Your task to perform on an android device: toggle javascript in the chrome app Image 0: 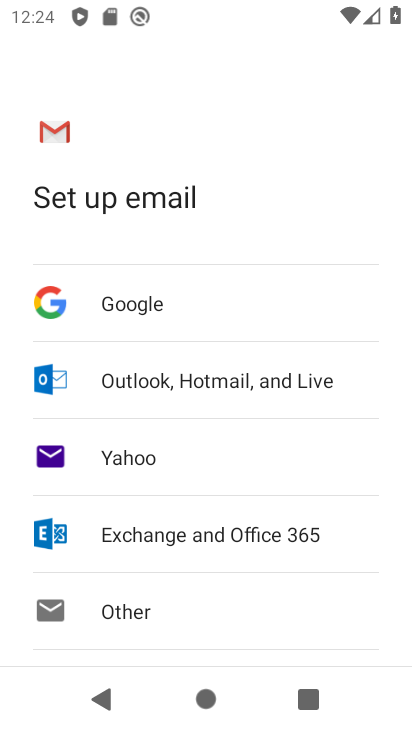
Step 0: press home button
Your task to perform on an android device: toggle javascript in the chrome app Image 1: 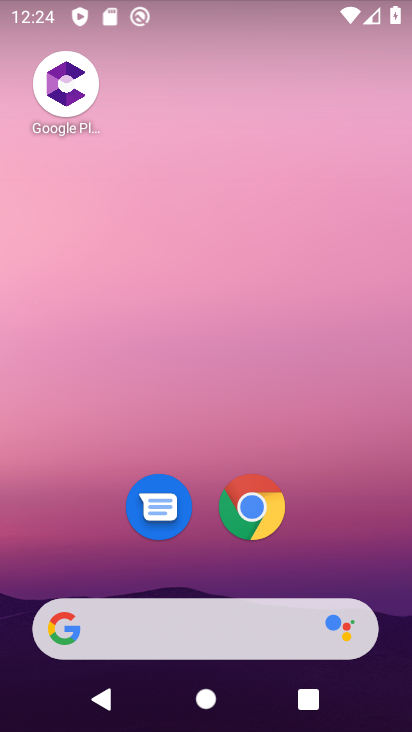
Step 1: click (255, 495)
Your task to perform on an android device: toggle javascript in the chrome app Image 2: 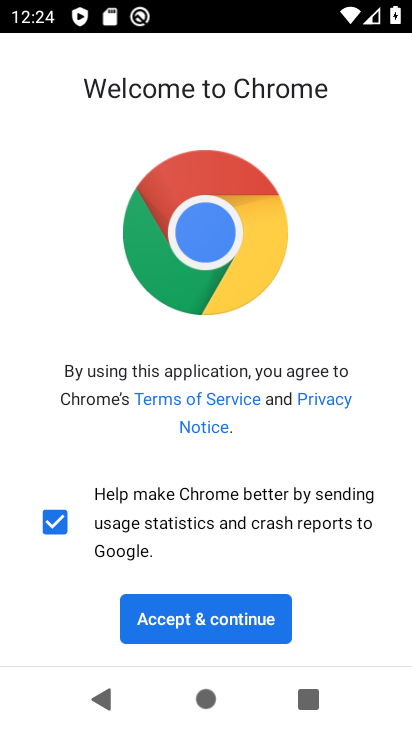
Step 2: click (164, 595)
Your task to perform on an android device: toggle javascript in the chrome app Image 3: 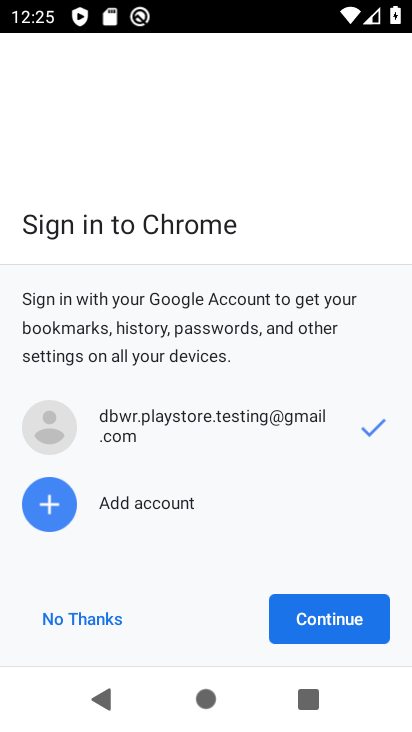
Step 3: click (332, 614)
Your task to perform on an android device: toggle javascript in the chrome app Image 4: 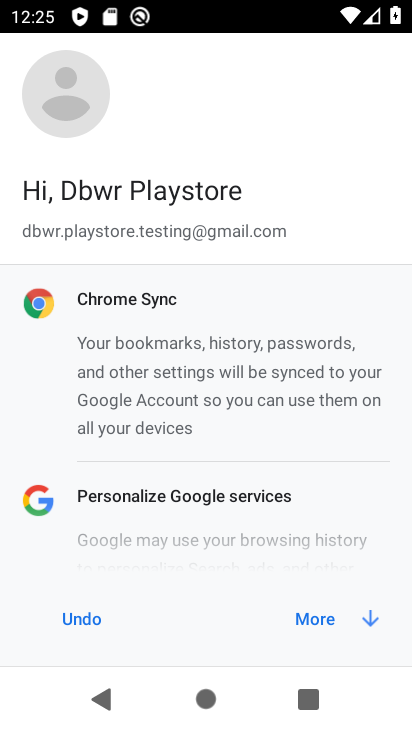
Step 4: click (307, 626)
Your task to perform on an android device: toggle javascript in the chrome app Image 5: 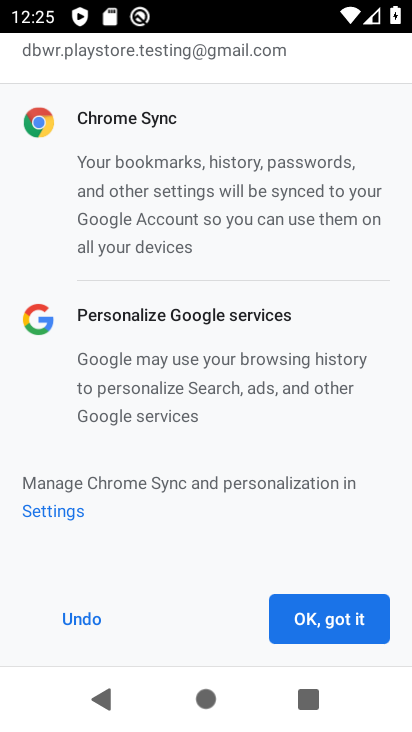
Step 5: click (307, 626)
Your task to perform on an android device: toggle javascript in the chrome app Image 6: 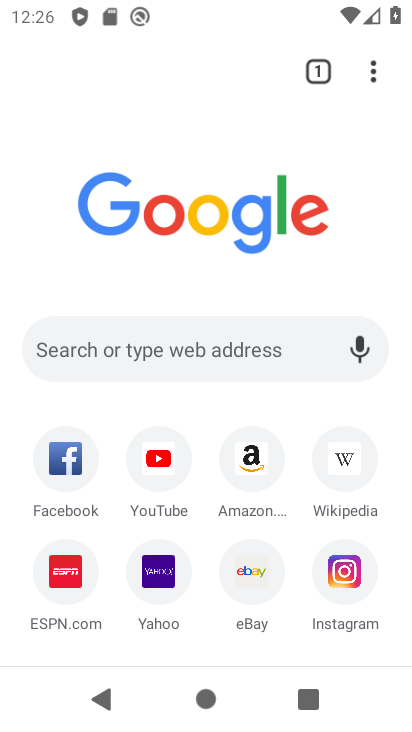
Step 6: click (389, 75)
Your task to perform on an android device: toggle javascript in the chrome app Image 7: 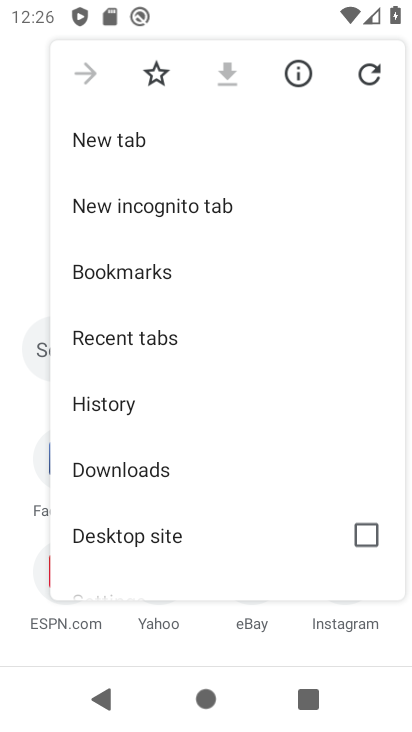
Step 7: drag from (134, 534) to (183, 99)
Your task to perform on an android device: toggle javascript in the chrome app Image 8: 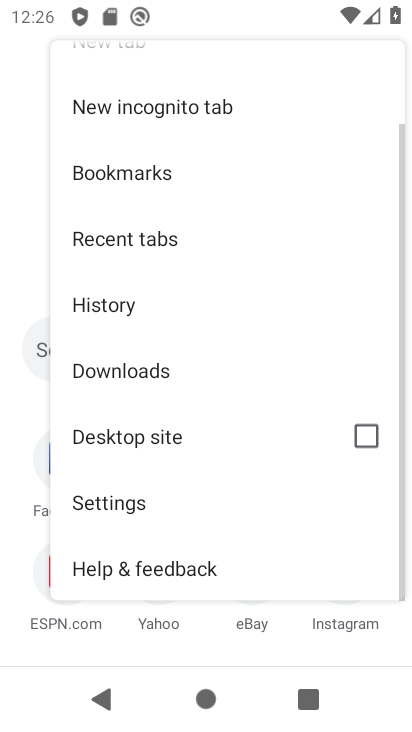
Step 8: click (155, 520)
Your task to perform on an android device: toggle javascript in the chrome app Image 9: 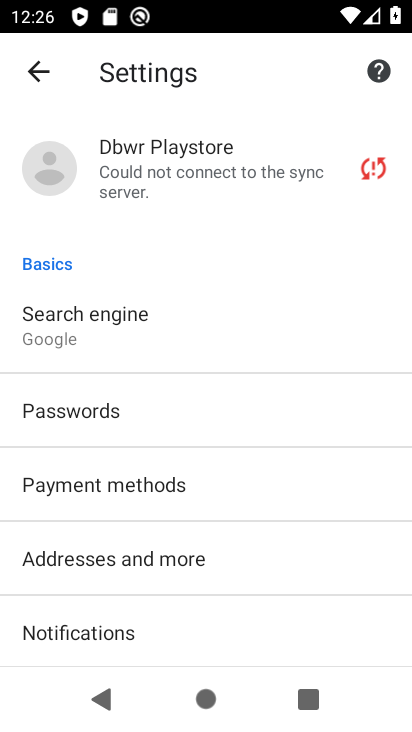
Step 9: drag from (155, 520) to (171, 233)
Your task to perform on an android device: toggle javascript in the chrome app Image 10: 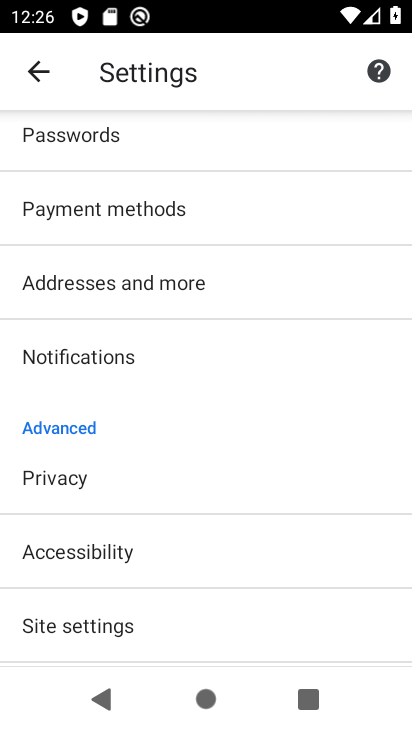
Step 10: drag from (79, 635) to (203, 278)
Your task to perform on an android device: toggle javascript in the chrome app Image 11: 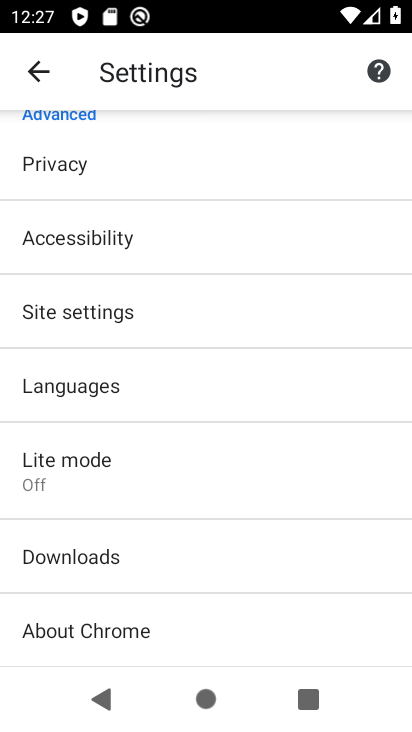
Step 11: click (105, 335)
Your task to perform on an android device: toggle javascript in the chrome app Image 12: 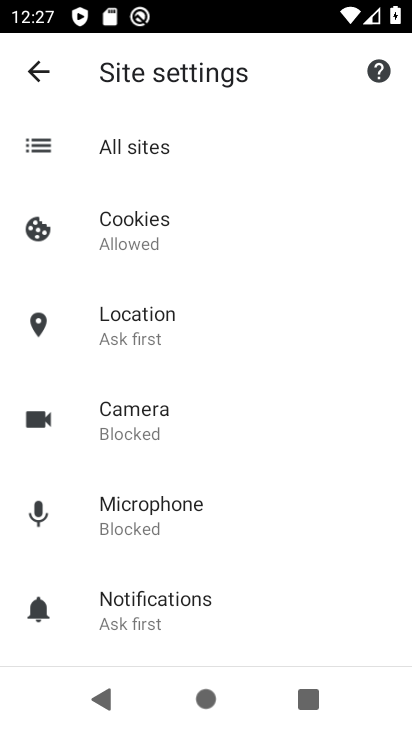
Step 12: drag from (131, 570) to (248, 190)
Your task to perform on an android device: toggle javascript in the chrome app Image 13: 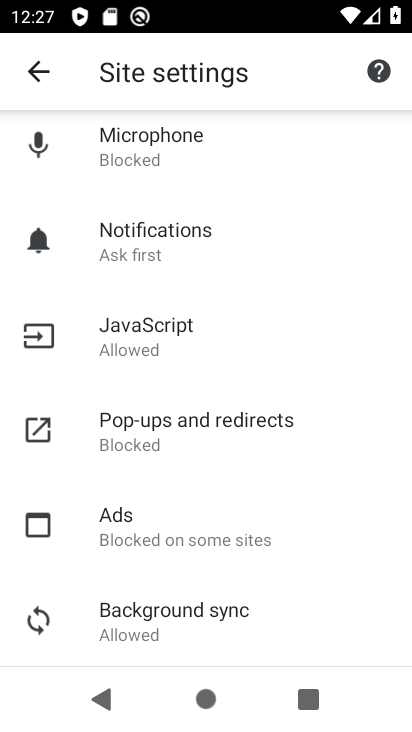
Step 13: click (161, 333)
Your task to perform on an android device: toggle javascript in the chrome app Image 14: 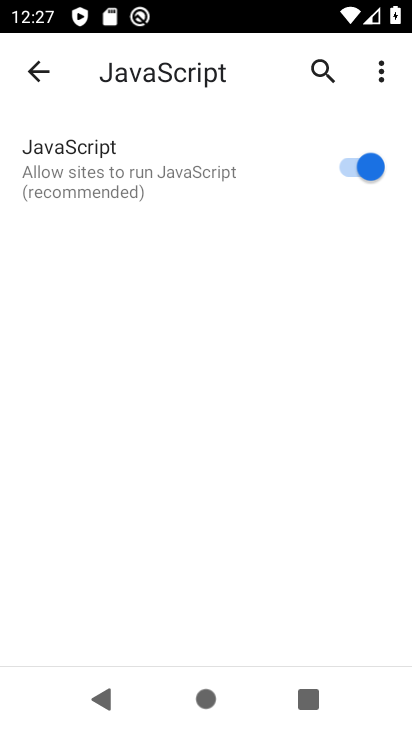
Step 14: task complete